Your task to perform on an android device: Open settings on Google Maps Image 0: 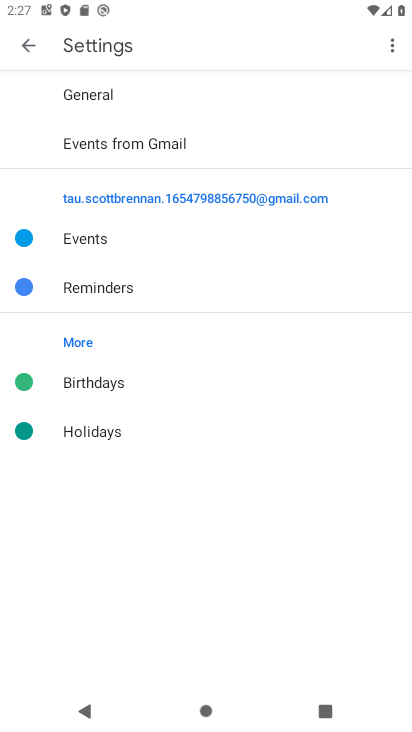
Step 0: drag from (229, 514) to (257, 245)
Your task to perform on an android device: Open settings on Google Maps Image 1: 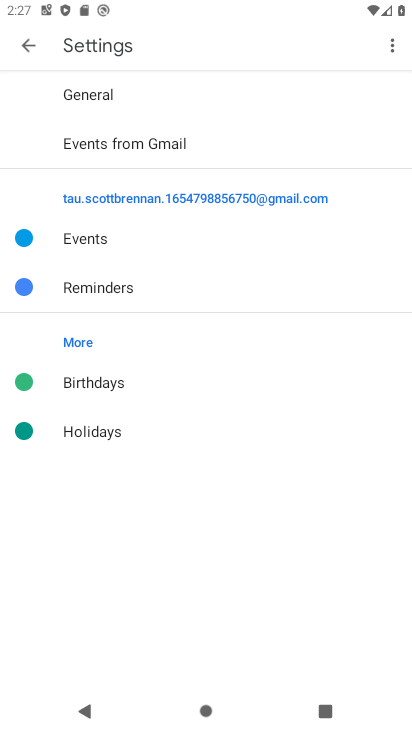
Step 1: press home button
Your task to perform on an android device: Open settings on Google Maps Image 2: 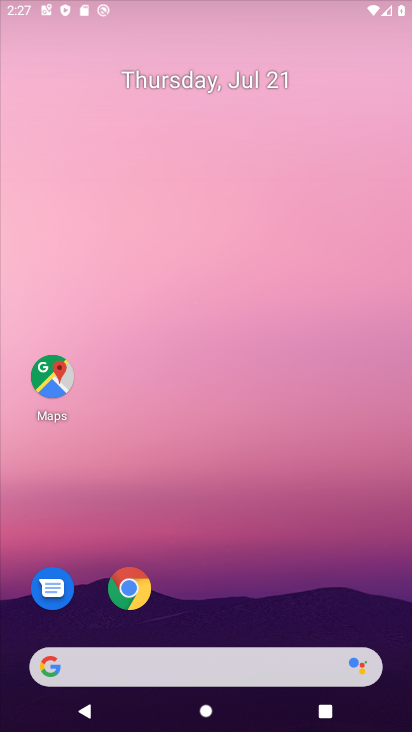
Step 2: drag from (206, 624) to (241, 57)
Your task to perform on an android device: Open settings on Google Maps Image 3: 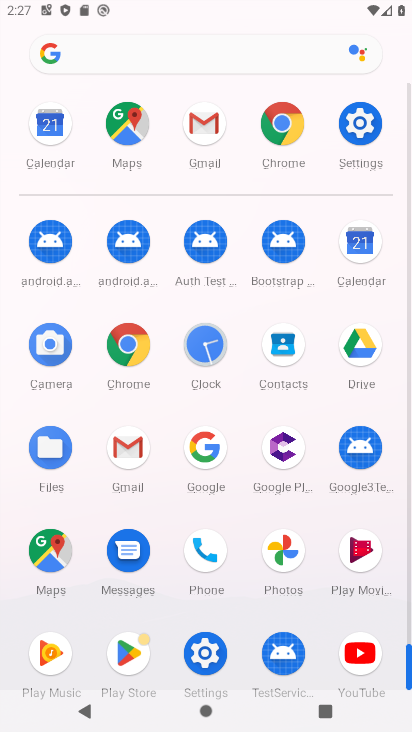
Step 3: click (46, 553)
Your task to perform on an android device: Open settings on Google Maps Image 4: 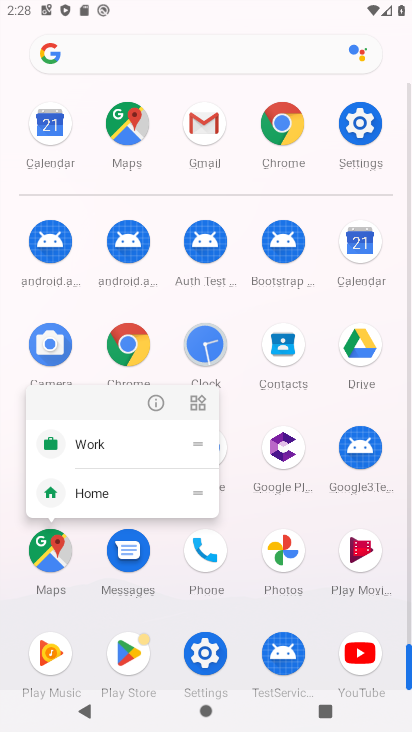
Step 4: click (153, 393)
Your task to perform on an android device: Open settings on Google Maps Image 5: 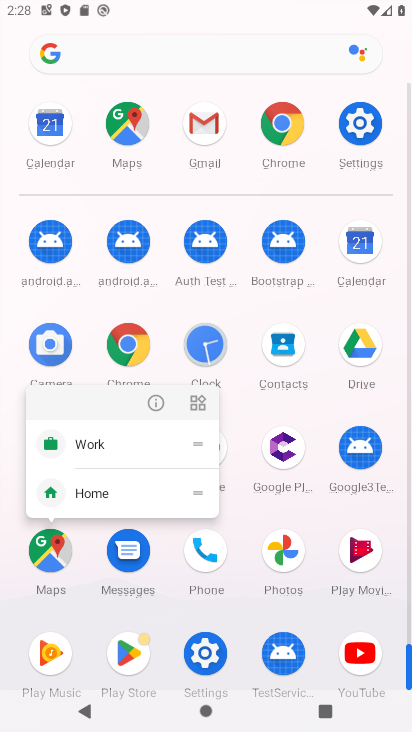
Step 5: click (153, 393)
Your task to perform on an android device: Open settings on Google Maps Image 6: 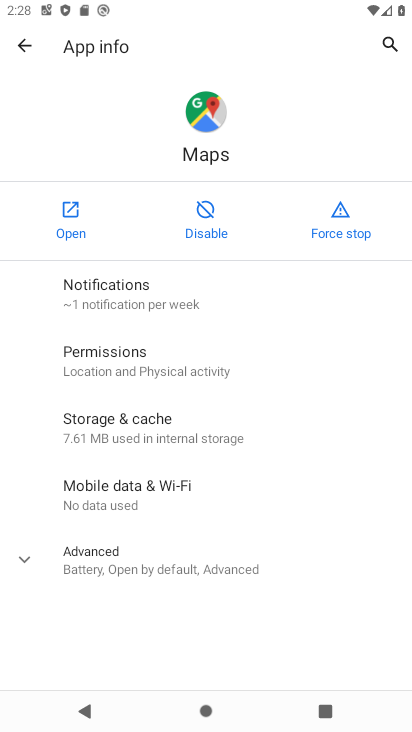
Step 6: click (67, 240)
Your task to perform on an android device: Open settings on Google Maps Image 7: 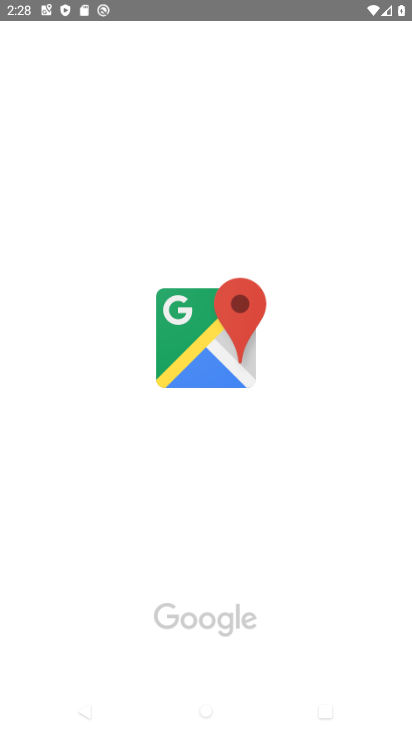
Step 7: drag from (286, 546) to (278, 312)
Your task to perform on an android device: Open settings on Google Maps Image 8: 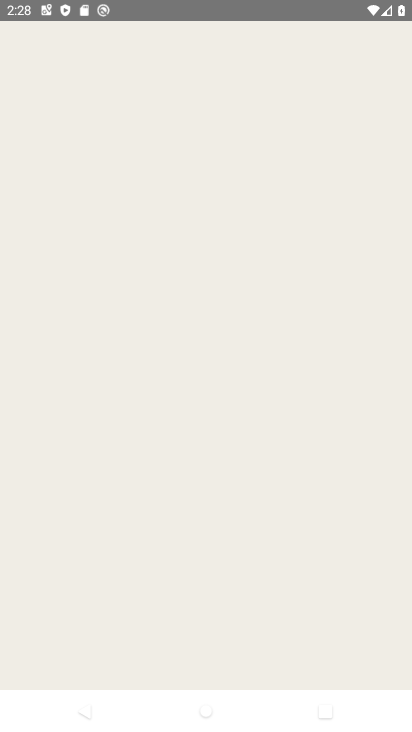
Step 8: drag from (310, 514) to (298, 317)
Your task to perform on an android device: Open settings on Google Maps Image 9: 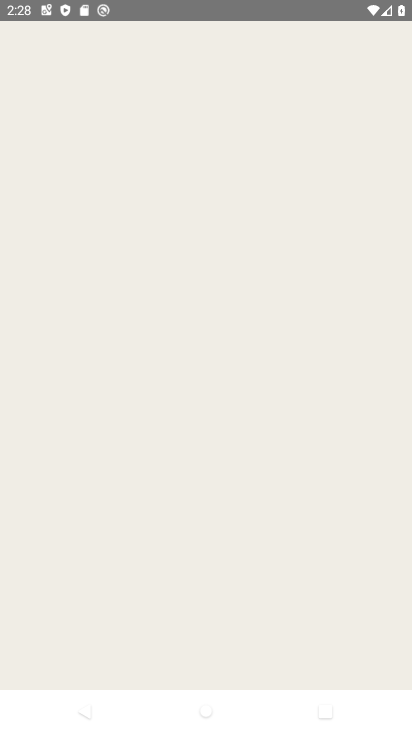
Step 9: drag from (242, 167) to (243, 481)
Your task to perform on an android device: Open settings on Google Maps Image 10: 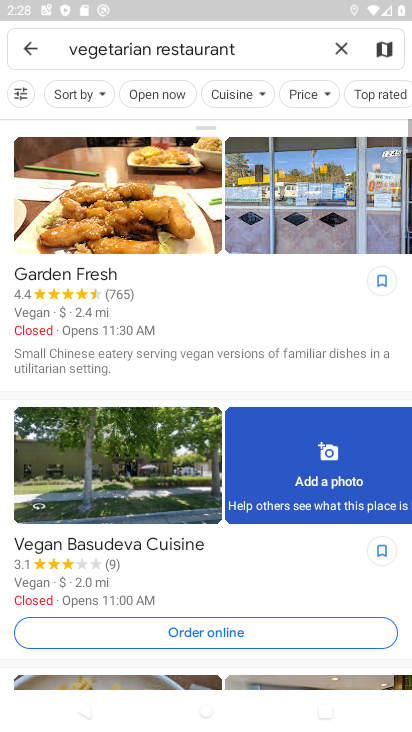
Step 10: click (29, 44)
Your task to perform on an android device: Open settings on Google Maps Image 11: 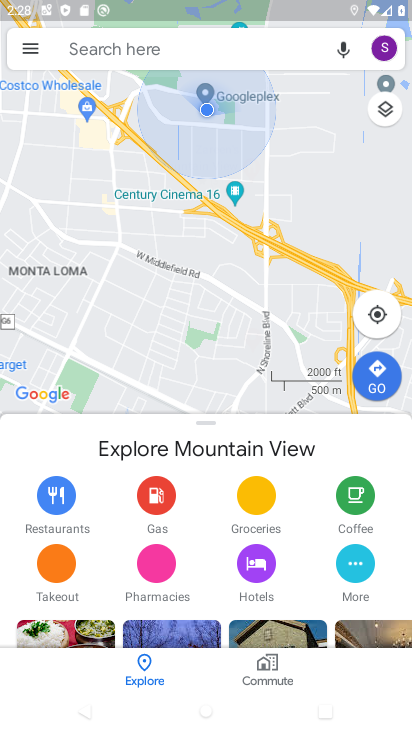
Step 11: click (390, 57)
Your task to perform on an android device: Open settings on Google Maps Image 12: 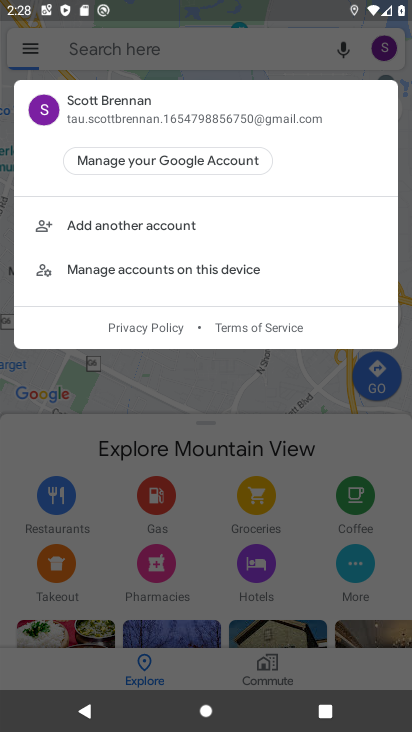
Step 12: press back button
Your task to perform on an android device: Open settings on Google Maps Image 13: 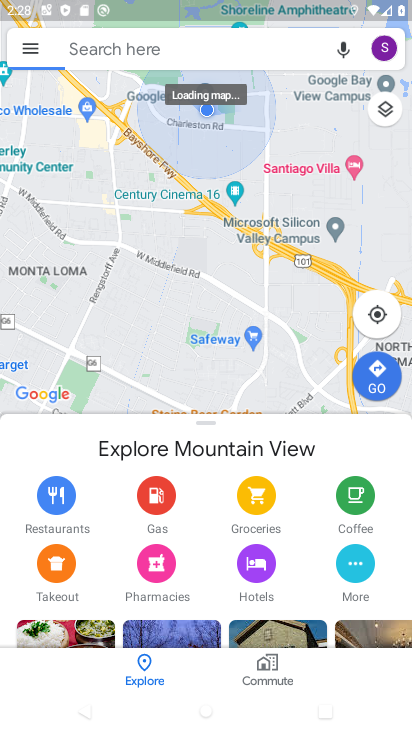
Step 13: click (29, 49)
Your task to perform on an android device: Open settings on Google Maps Image 14: 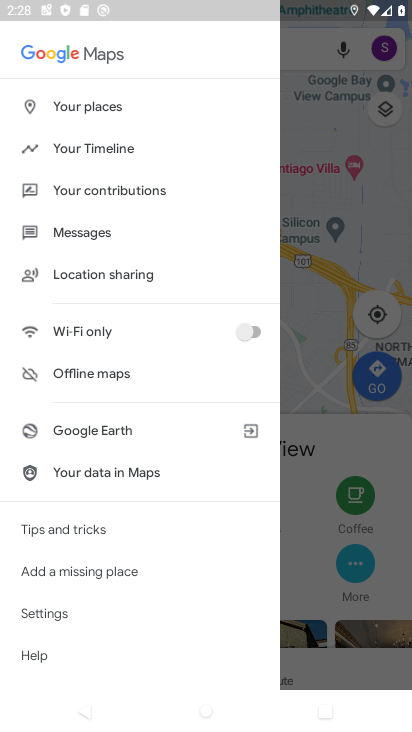
Step 14: click (103, 608)
Your task to perform on an android device: Open settings on Google Maps Image 15: 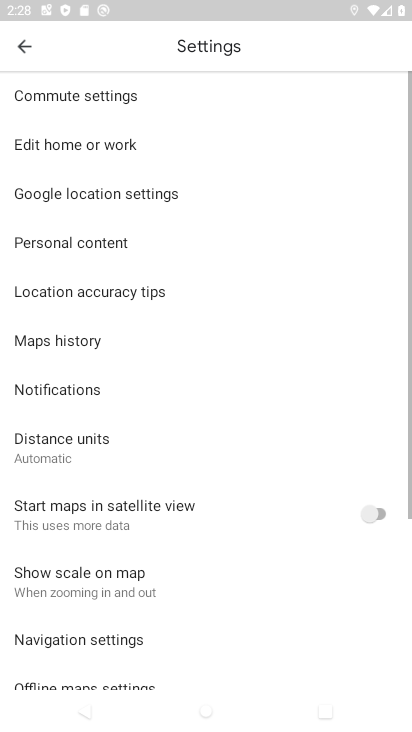
Step 15: task complete